Your task to perform on an android device: change the clock display to show seconds Image 0: 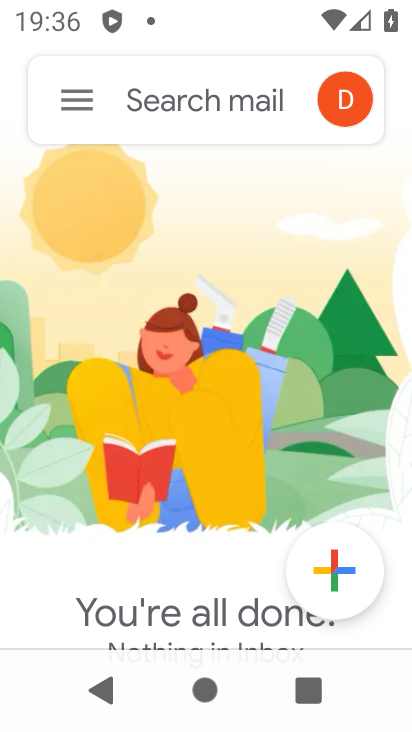
Step 0: press home button
Your task to perform on an android device: change the clock display to show seconds Image 1: 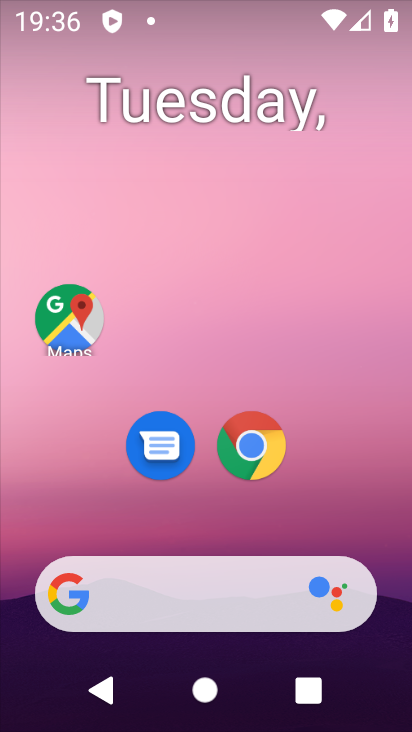
Step 1: drag from (139, 536) to (279, 3)
Your task to perform on an android device: change the clock display to show seconds Image 2: 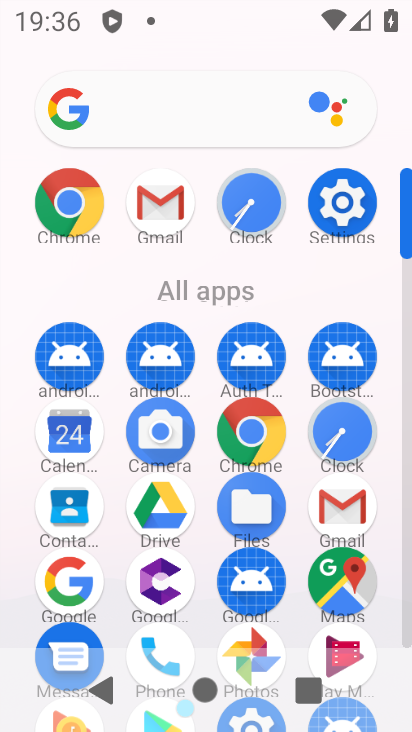
Step 2: click (344, 448)
Your task to perform on an android device: change the clock display to show seconds Image 3: 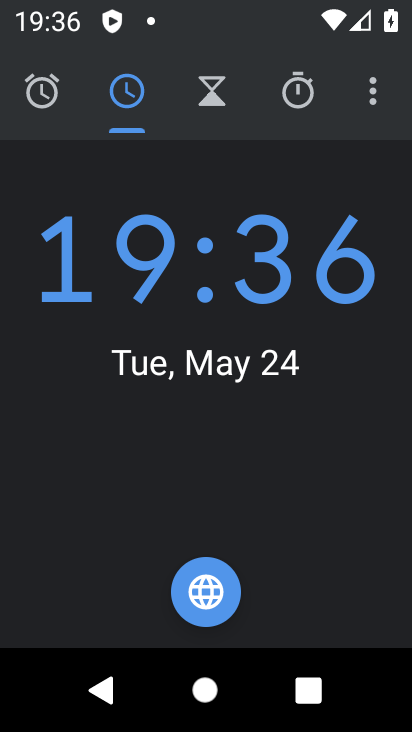
Step 3: click (372, 101)
Your task to perform on an android device: change the clock display to show seconds Image 4: 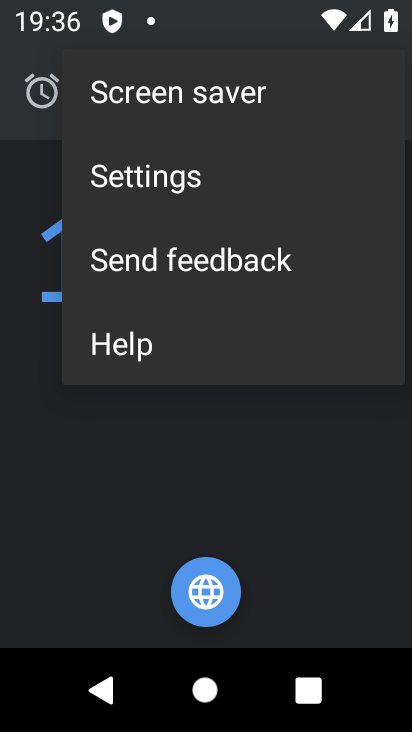
Step 4: click (188, 184)
Your task to perform on an android device: change the clock display to show seconds Image 5: 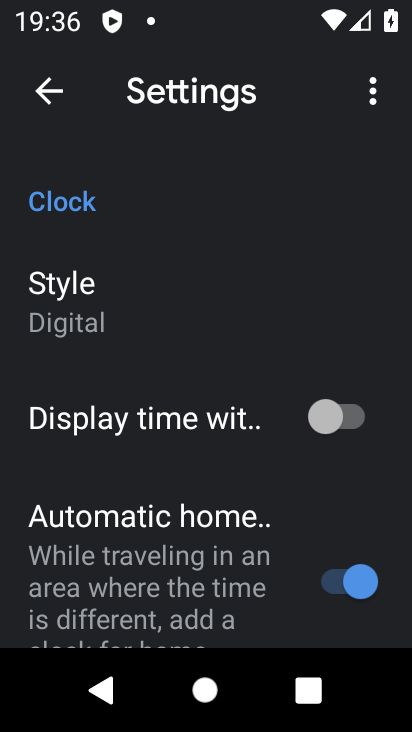
Step 5: click (346, 429)
Your task to perform on an android device: change the clock display to show seconds Image 6: 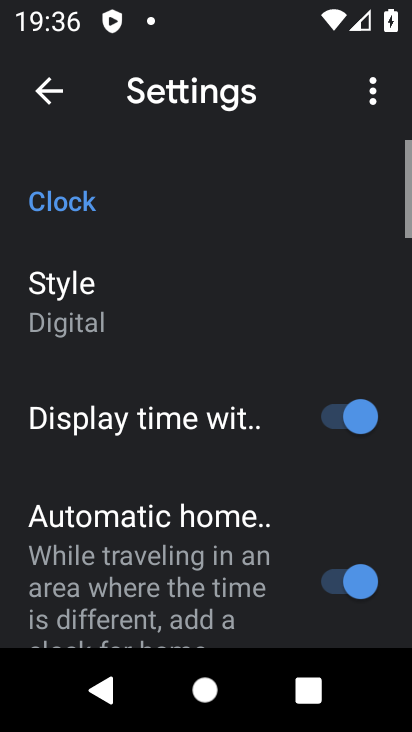
Step 6: task complete